Your task to perform on an android device: remove spam from my inbox in the gmail app Image 0: 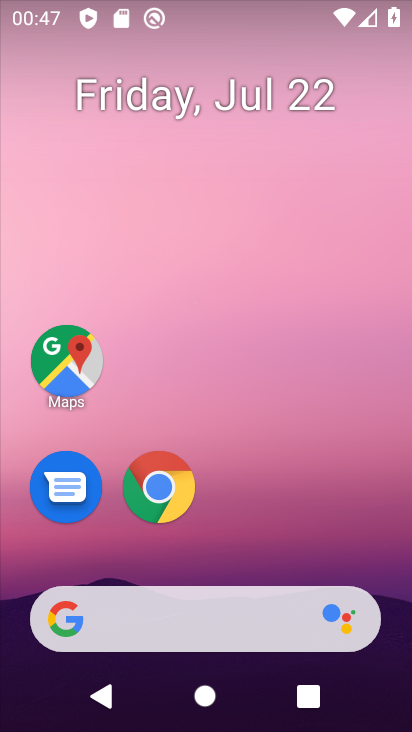
Step 0: drag from (220, 537) to (274, 15)
Your task to perform on an android device: remove spam from my inbox in the gmail app Image 1: 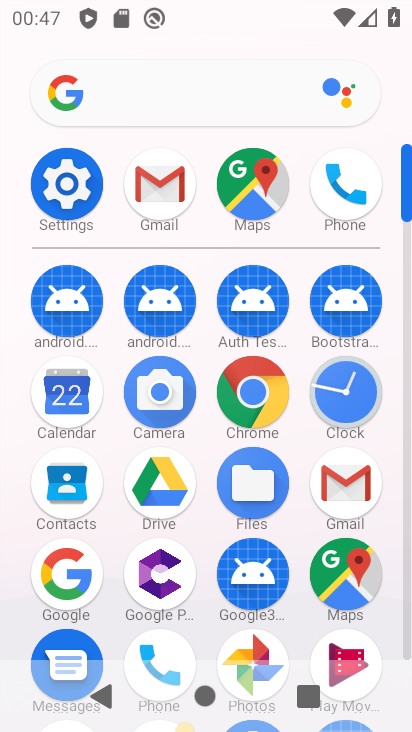
Step 1: click (158, 177)
Your task to perform on an android device: remove spam from my inbox in the gmail app Image 2: 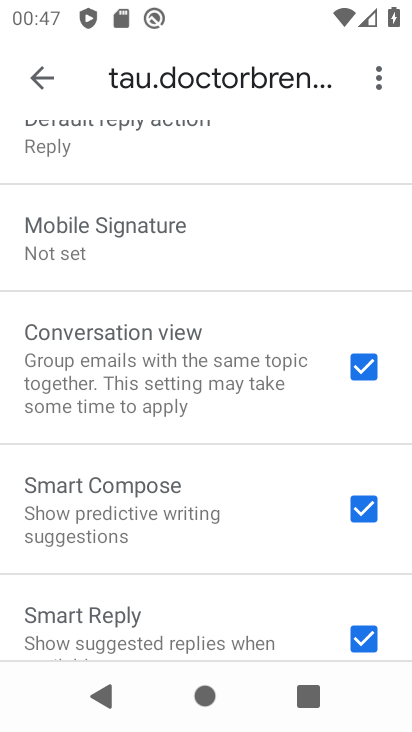
Step 2: click (39, 84)
Your task to perform on an android device: remove spam from my inbox in the gmail app Image 3: 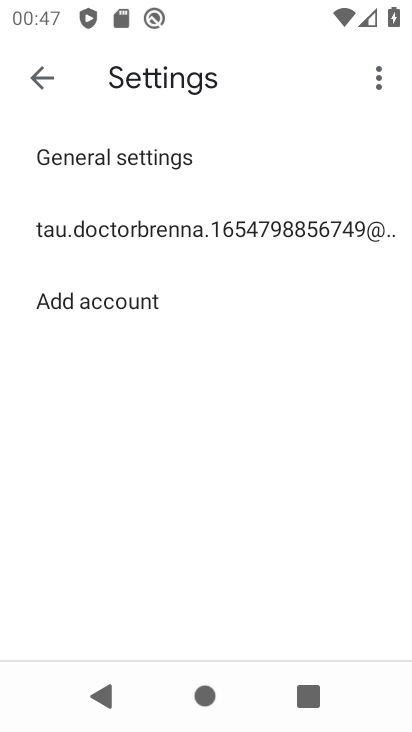
Step 3: click (39, 71)
Your task to perform on an android device: remove spam from my inbox in the gmail app Image 4: 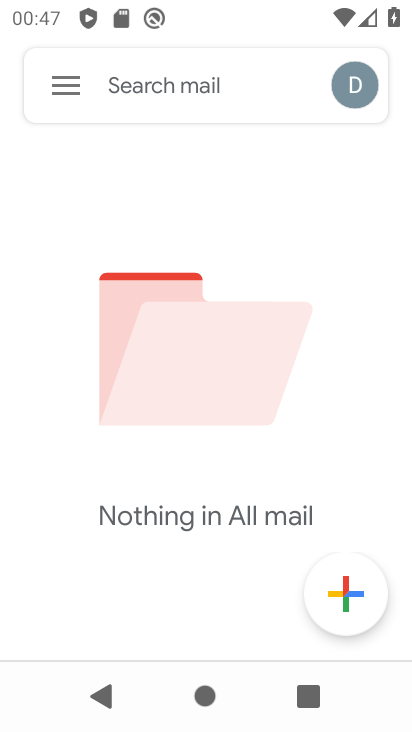
Step 4: click (49, 73)
Your task to perform on an android device: remove spam from my inbox in the gmail app Image 5: 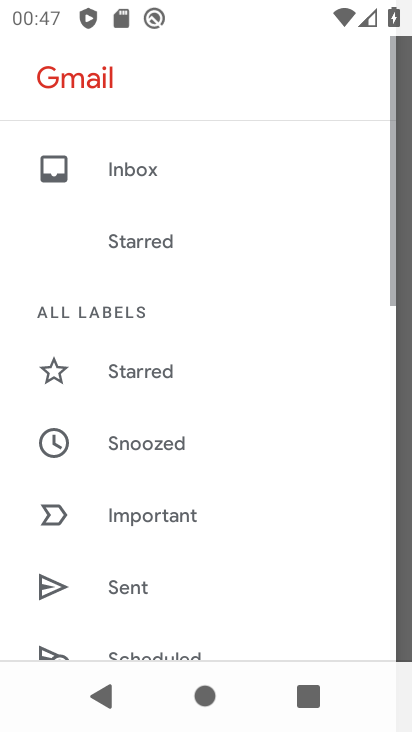
Step 5: drag from (161, 598) to (273, 144)
Your task to perform on an android device: remove spam from my inbox in the gmail app Image 6: 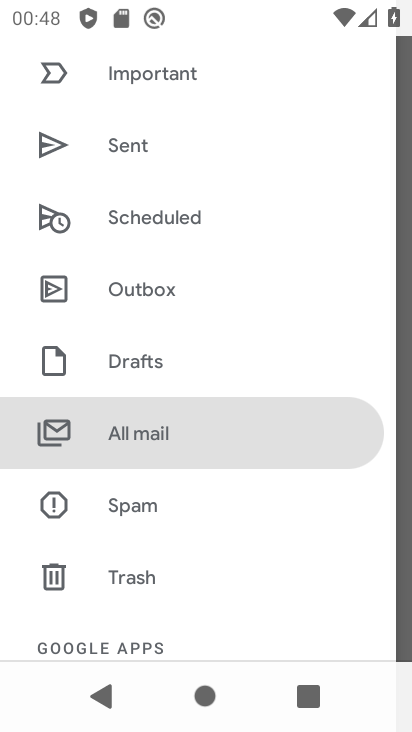
Step 6: click (177, 509)
Your task to perform on an android device: remove spam from my inbox in the gmail app Image 7: 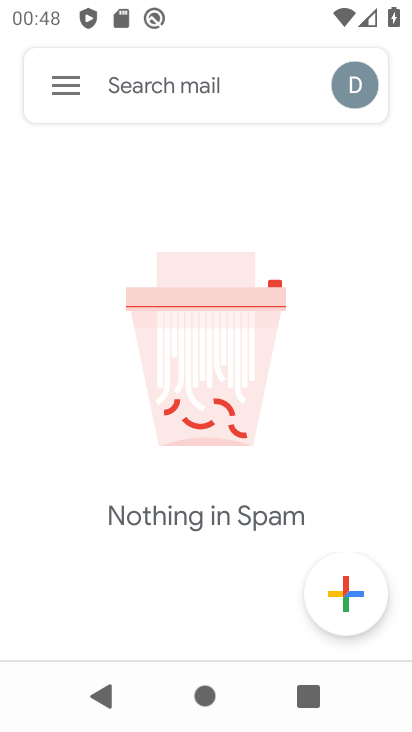
Step 7: task complete